Your task to perform on an android device: turn off airplane mode Image 0: 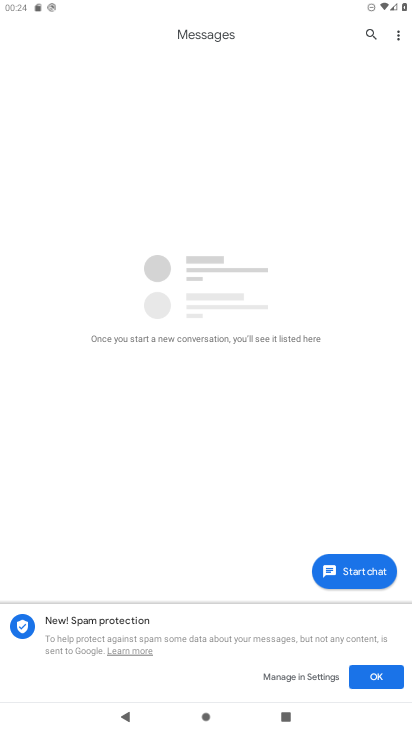
Step 0: drag from (238, 7) to (272, 517)
Your task to perform on an android device: turn off airplane mode Image 1: 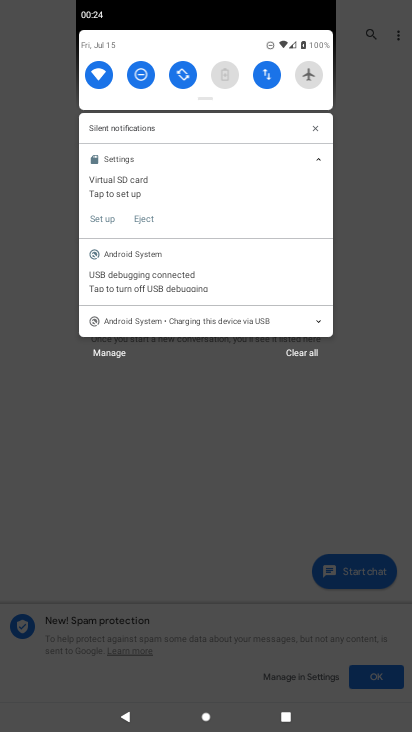
Step 1: task complete